Your task to perform on an android device: turn on the 24-hour format for clock Image 0: 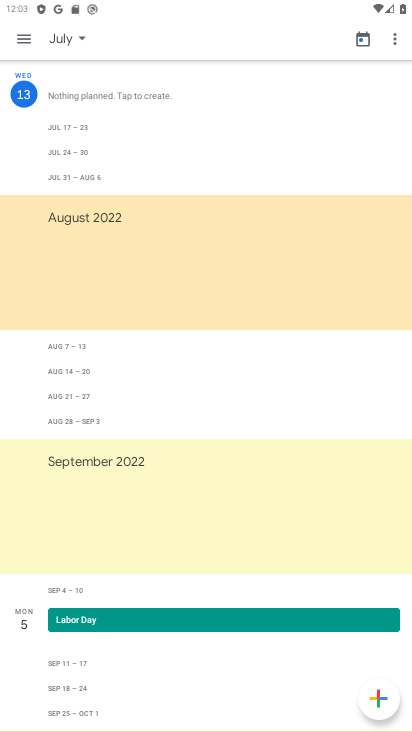
Step 0: press home button
Your task to perform on an android device: turn on the 24-hour format for clock Image 1: 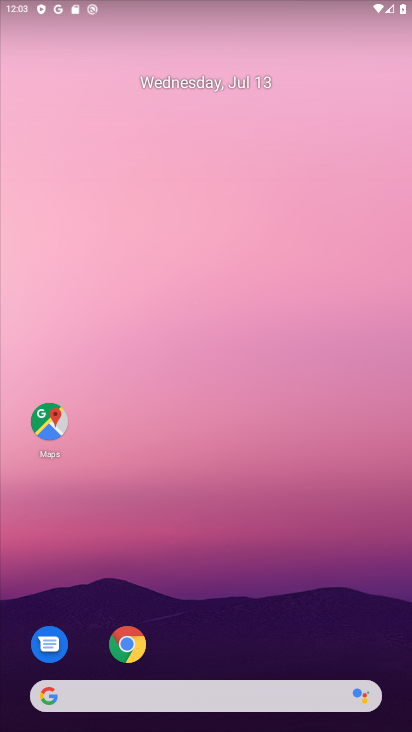
Step 1: drag from (268, 609) to (361, 7)
Your task to perform on an android device: turn on the 24-hour format for clock Image 2: 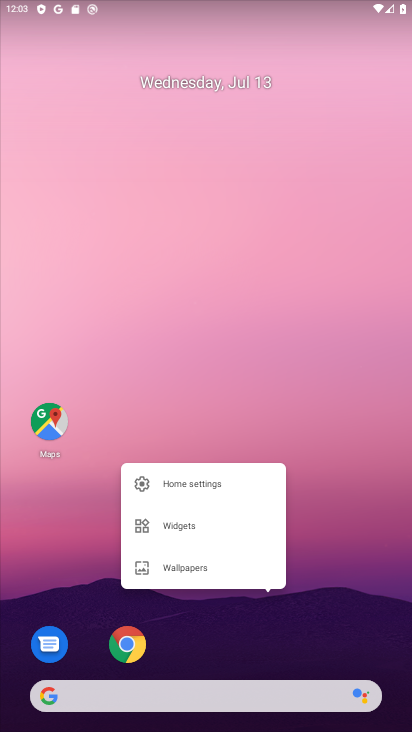
Step 2: click (358, 218)
Your task to perform on an android device: turn on the 24-hour format for clock Image 3: 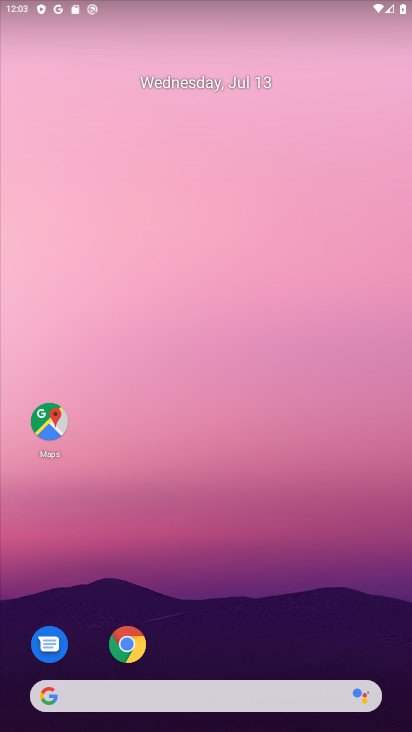
Step 3: drag from (276, 670) to (339, 34)
Your task to perform on an android device: turn on the 24-hour format for clock Image 4: 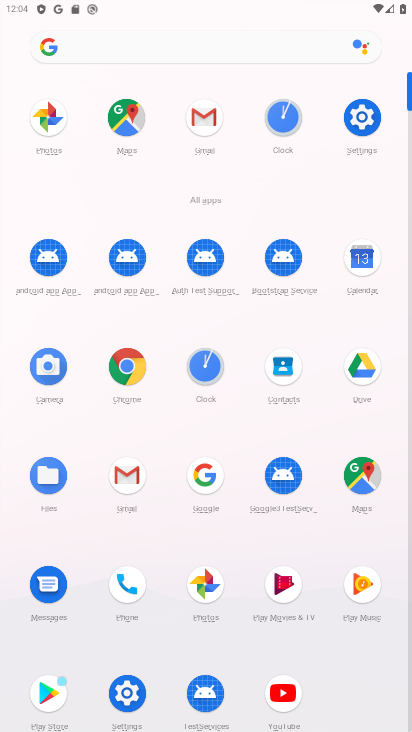
Step 4: click (206, 363)
Your task to perform on an android device: turn on the 24-hour format for clock Image 5: 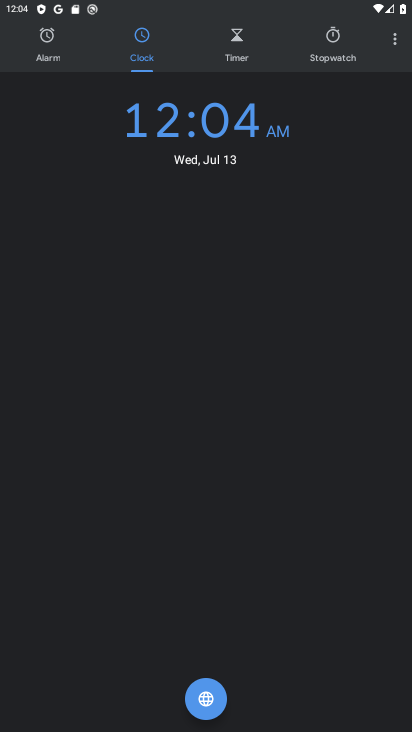
Step 5: click (388, 59)
Your task to perform on an android device: turn on the 24-hour format for clock Image 6: 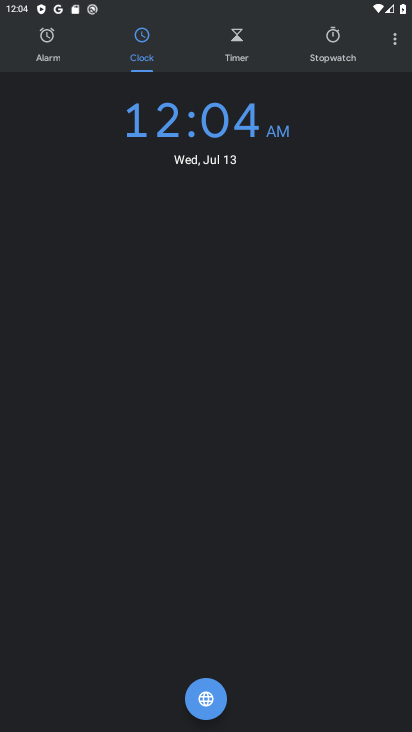
Step 6: click (400, 40)
Your task to perform on an android device: turn on the 24-hour format for clock Image 7: 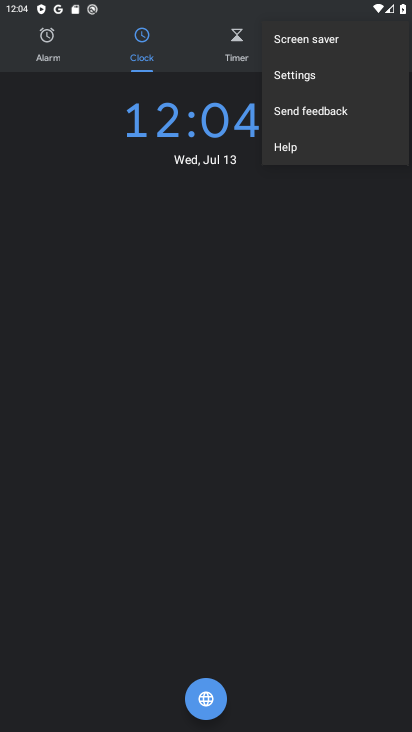
Step 7: click (305, 79)
Your task to perform on an android device: turn on the 24-hour format for clock Image 8: 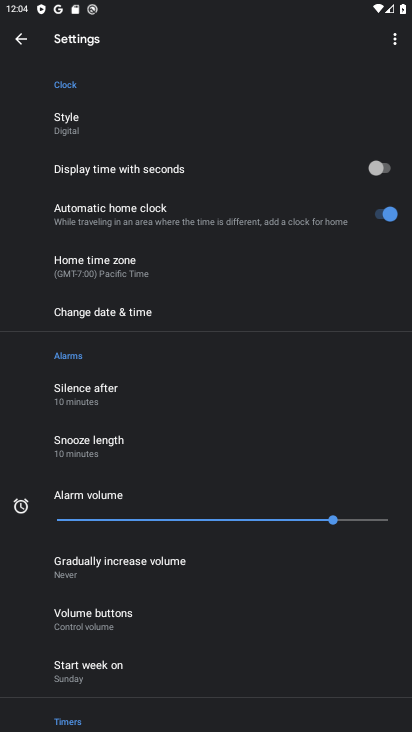
Step 8: click (169, 305)
Your task to perform on an android device: turn on the 24-hour format for clock Image 9: 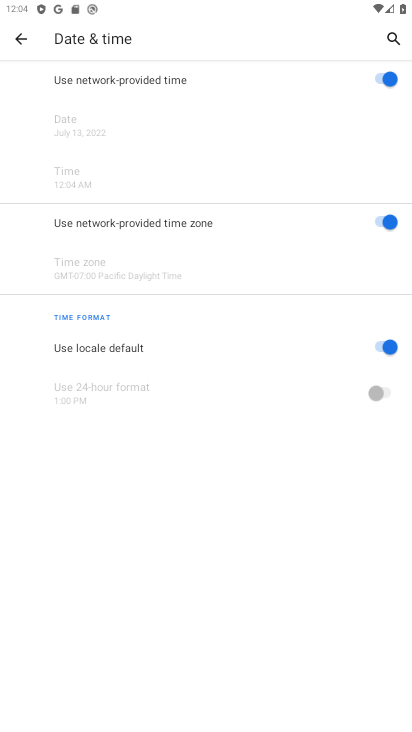
Step 9: click (366, 370)
Your task to perform on an android device: turn on the 24-hour format for clock Image 10: 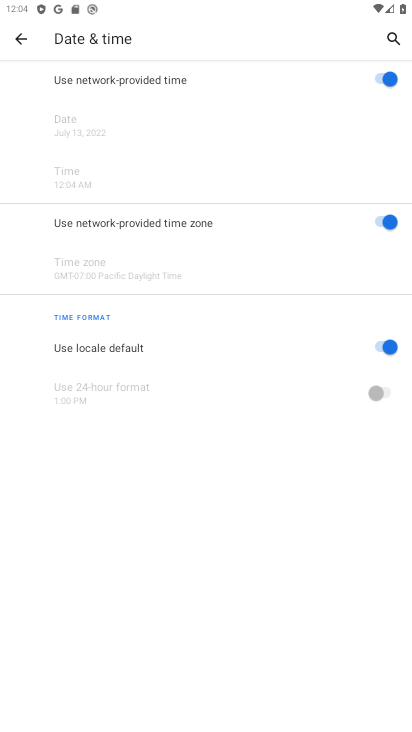
Step 10: click (390, 350)
Your task to perform on an android device: turn on the 24-hour format for clock Image 11: 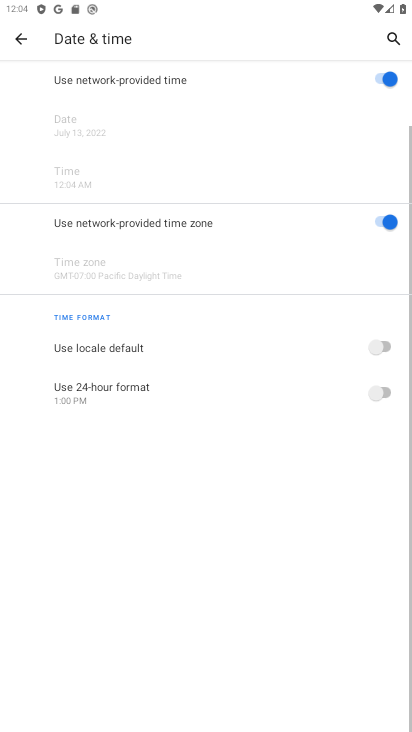
Step 11: click (373, 386)
Your task to perform on an android device: turn on the 24-hour format for clock Image 12: 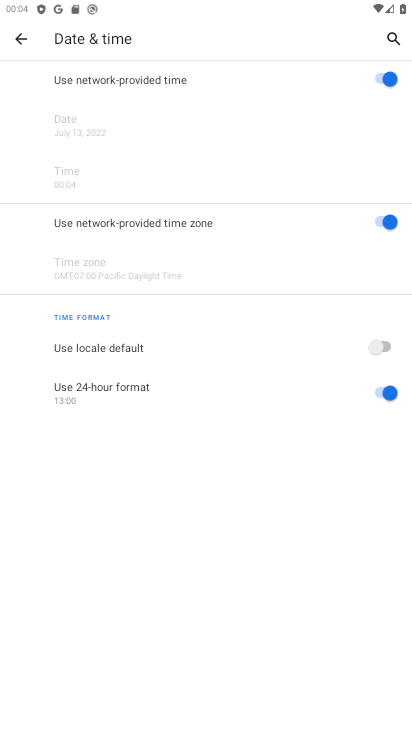
Step 12: task complete